Your task to perform on an android device: open app "Upside-Cash back on gas & food" (install if not already installed) Image 0: 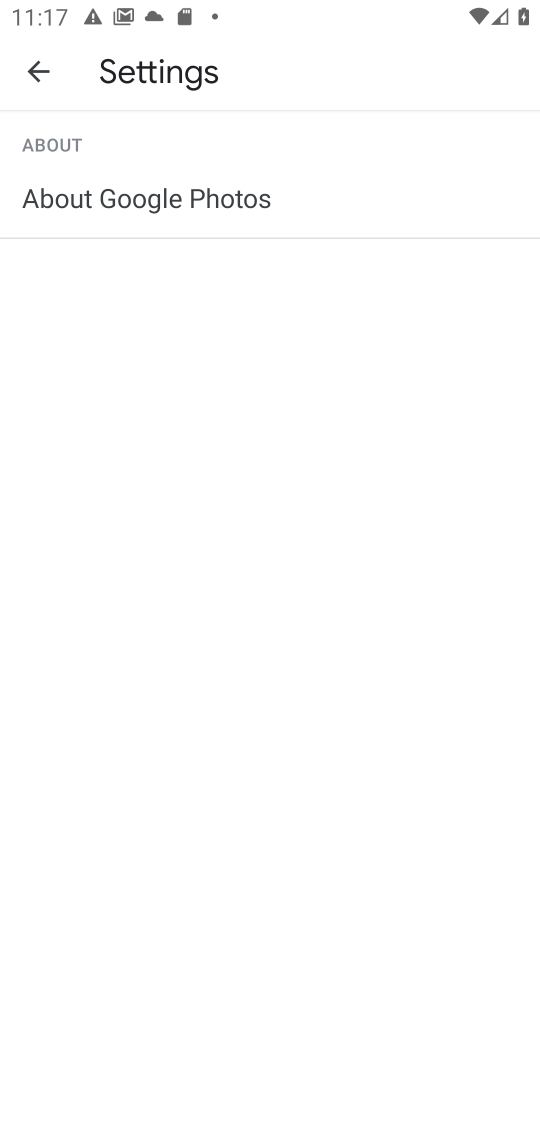
Step 0: press home button
Your task to perform on an android device: open app "Upside-Cash back on gas & food" (install if not already installed) Image 1: 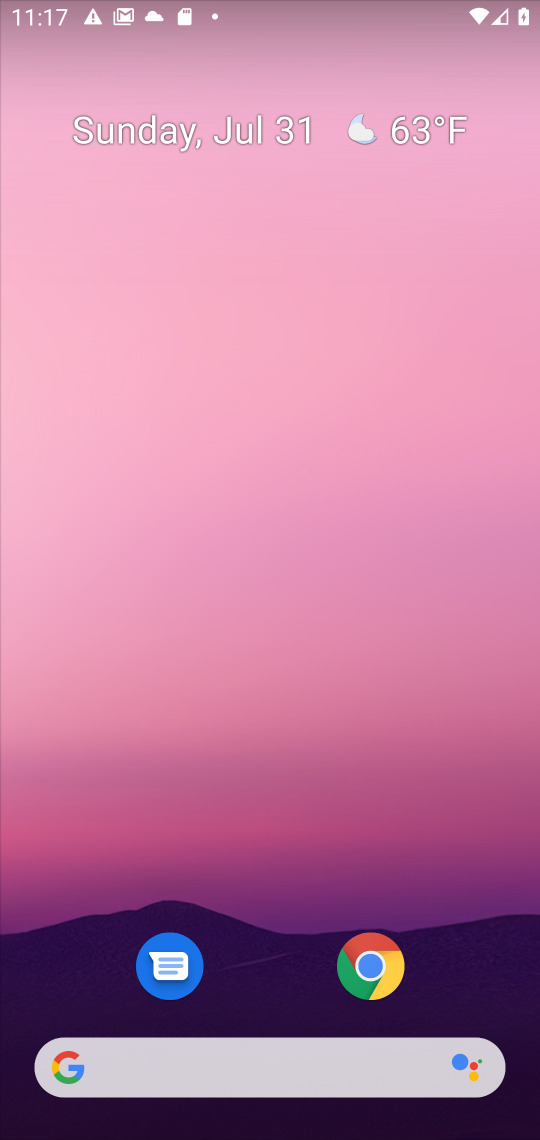
Step 1: drag from (251, 921) to (298, 3)
Your task to perform on an android device: open app "Upside-Cash back on gas & food" (install if not already installed) Image 2: 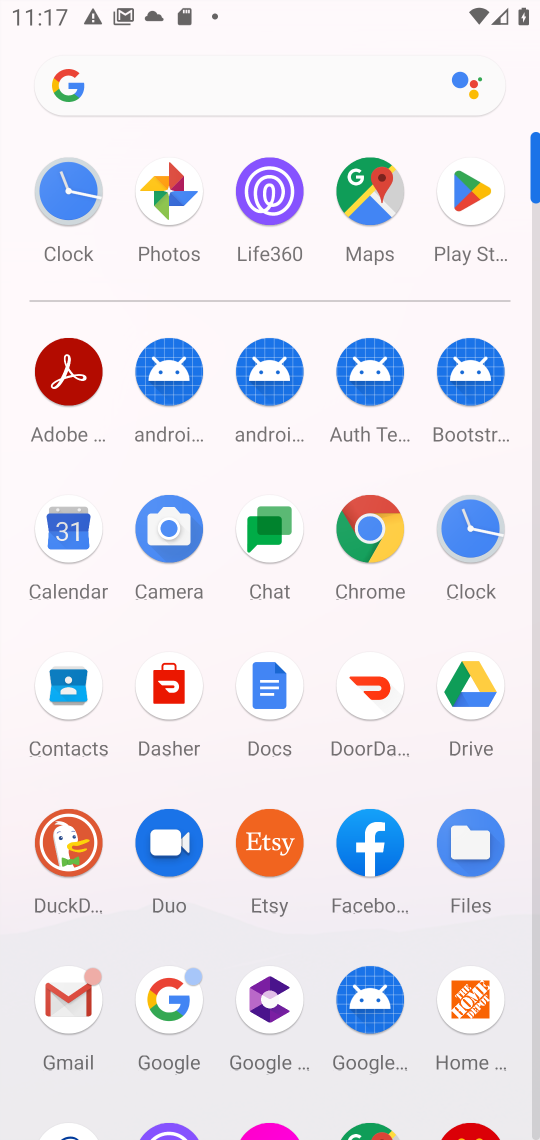
Step 2: click (473, 216)
Your task to perform on an android device: open app "Upside-Cash back on gas & food" (install if not already installed) Image 3: 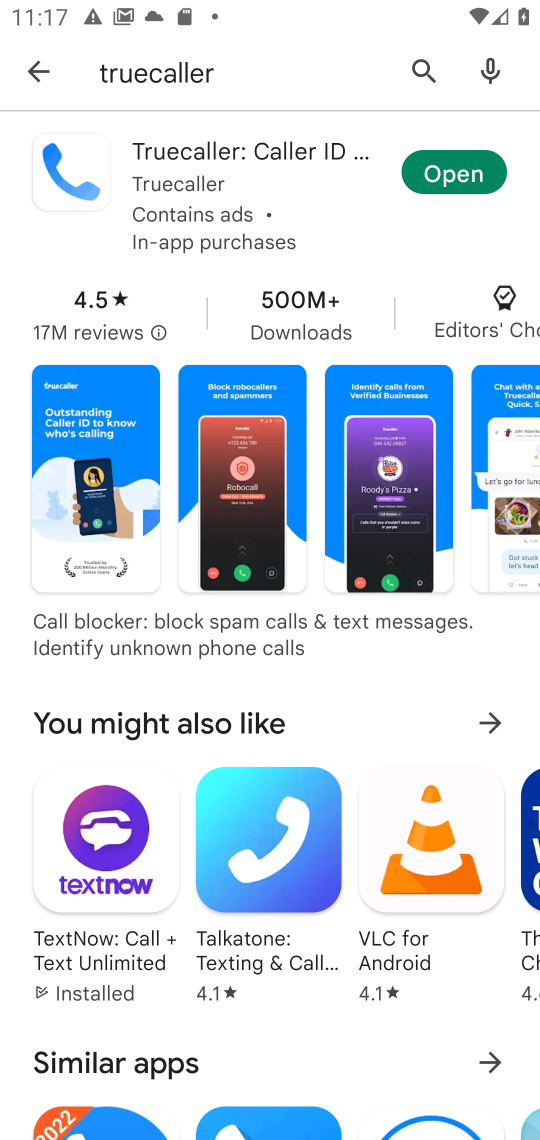
Step 3: click (238, 59)
Your task to perform on an android device: open app "Upside-Cash back on gas & food" (install if not already installed) Image 4: 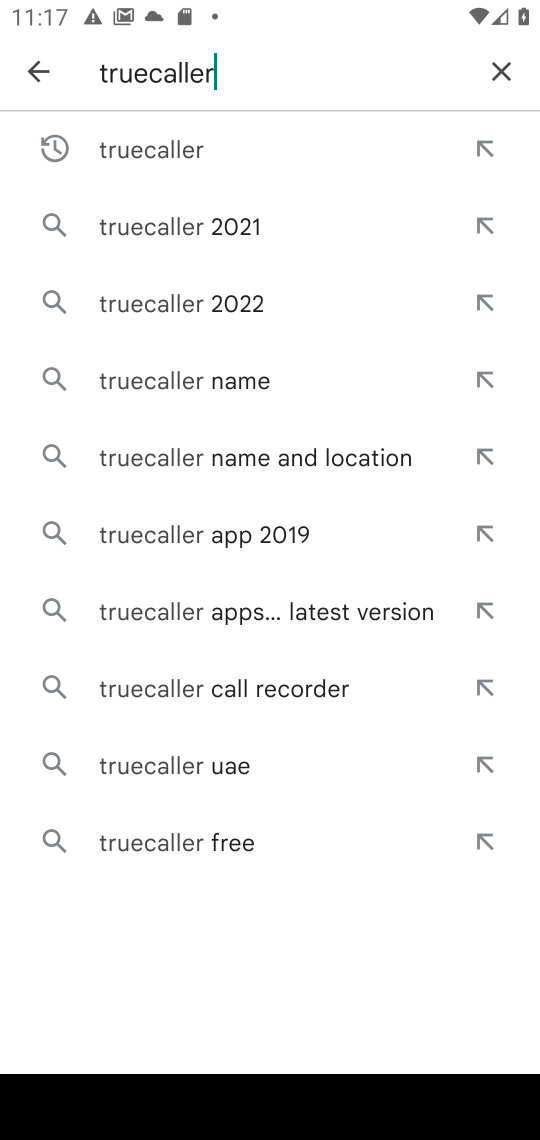
Step 4: click (490, 70)
Your task to perform on an android device: open app "Upside-Cash back on gas & food" (install if not already installed) Image 5: 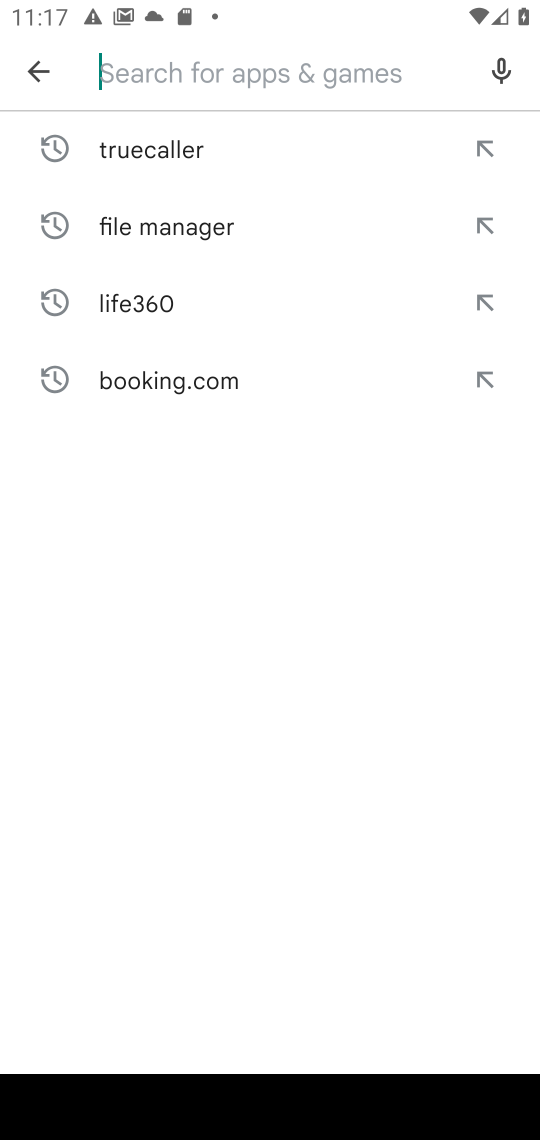
Step 5: type "upside"
Your task to perform on an android device: open app "Upside-Cash back on gas & food" (install if not already installed) Image 6: 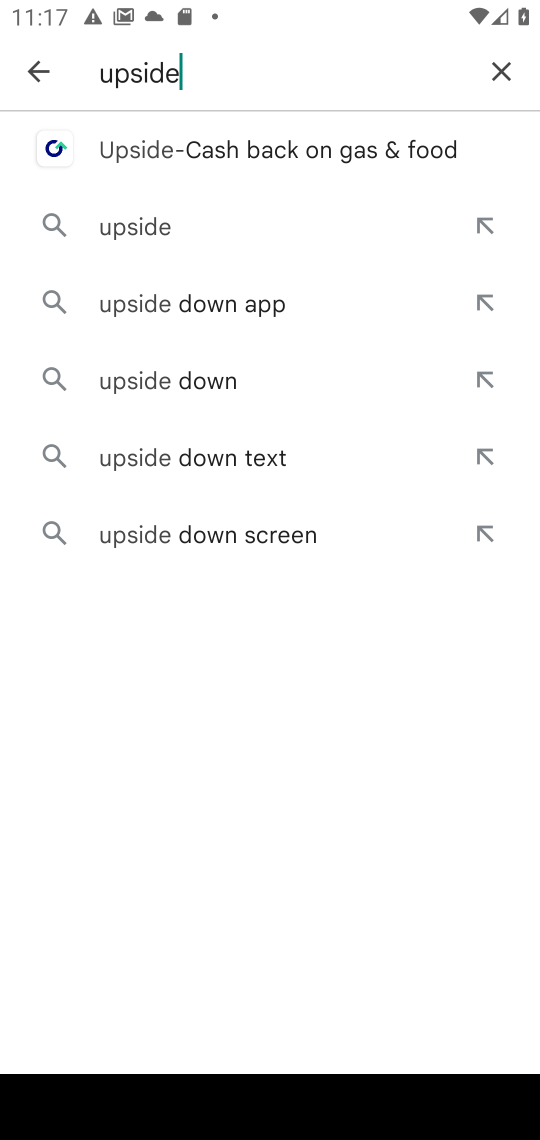
Step 6: click (211, 156)
Your task to perform on an android device: open app "Upside-Cash back on gas & food" (install if not already installed) Image 7: 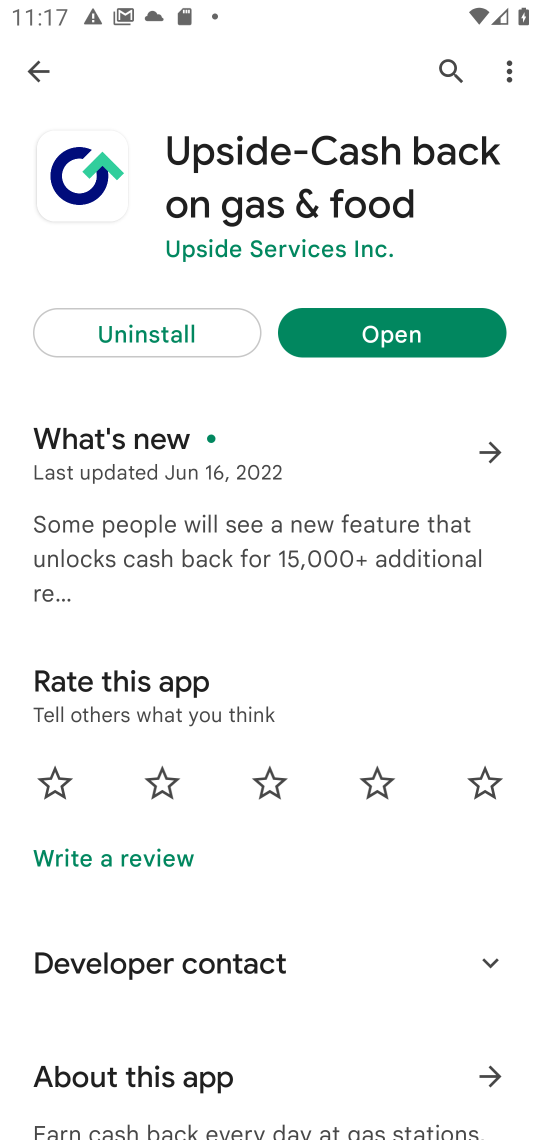
Step 7: click (384, 342)
Your task to perform on an android device: open app "Upside-Cash back on gas & food" (install if not already installed) Image 8: 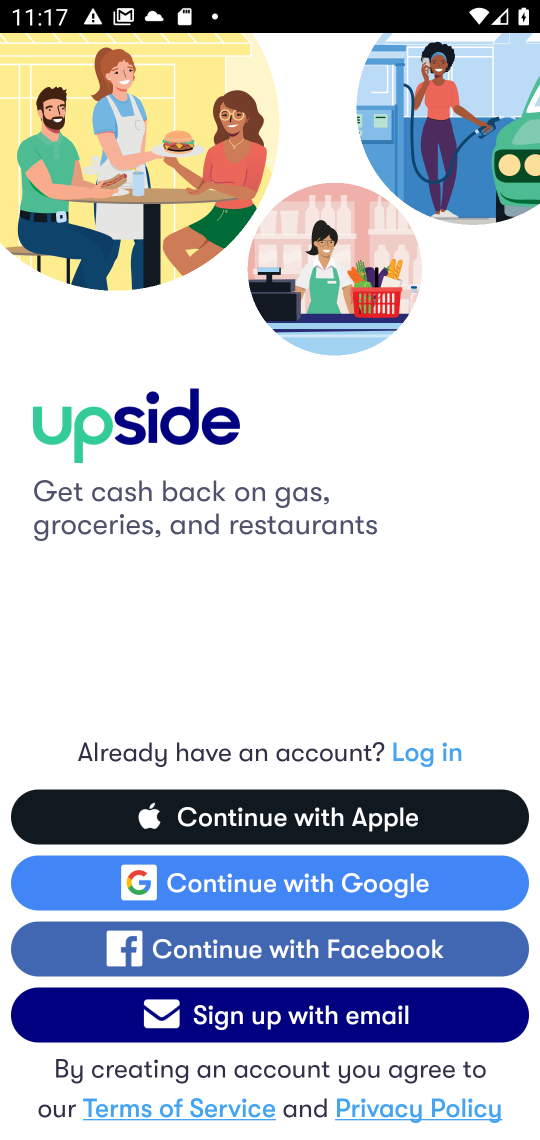
Step 8: click (374, 884)
Your task to perform on an android device: open app "Upside-Cash back on gas & food" (install if not already installed) Image 9: 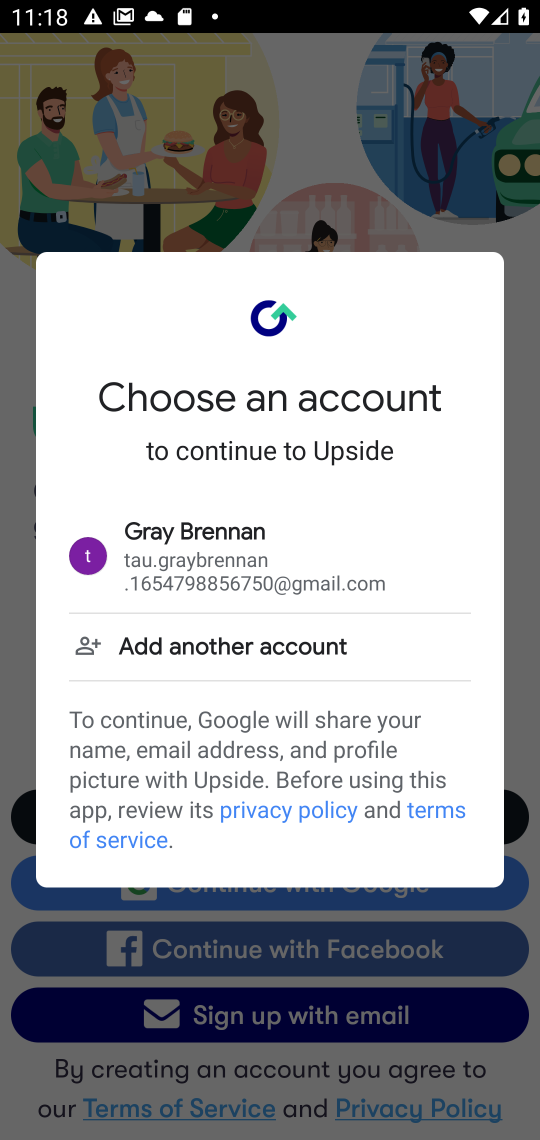
Step 9: click (230, 570)
Your task to perform on an android device: open app "Upside-Cash back on gas & food" (install if not already installed) Image 10: 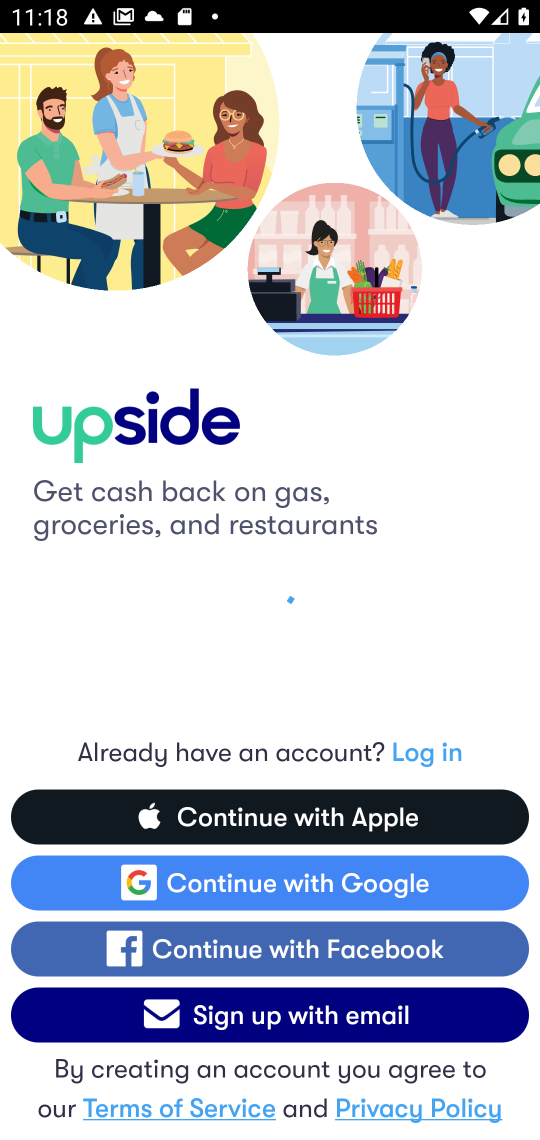
Step 10: task complete